Your task to perform on an android device: Open Chrome and go to settings Image 0: 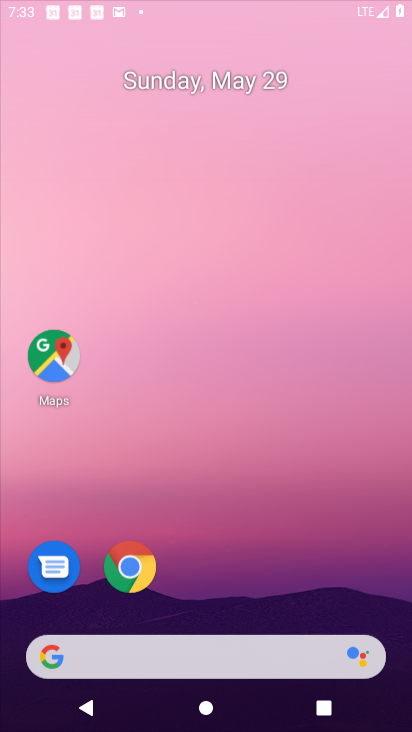
Step 0: press home button
Your task to perform on an android device: Open Chrome and go to settings Image 1: 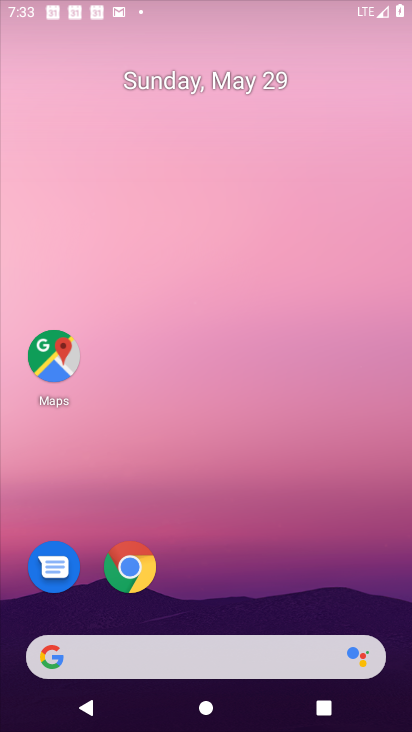
Step 1: drag from (230, 609) to (277, 381)
Your task to perform on an android device: Open Chrome and go to settings Image 2: 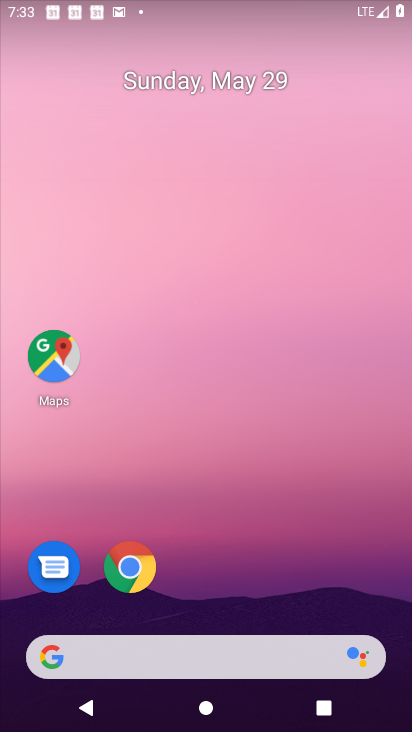
Step 2: drag from (248, 593) to (249, 186)
Your task to perform on an android device: Open Chrome and go to settings Image 3: 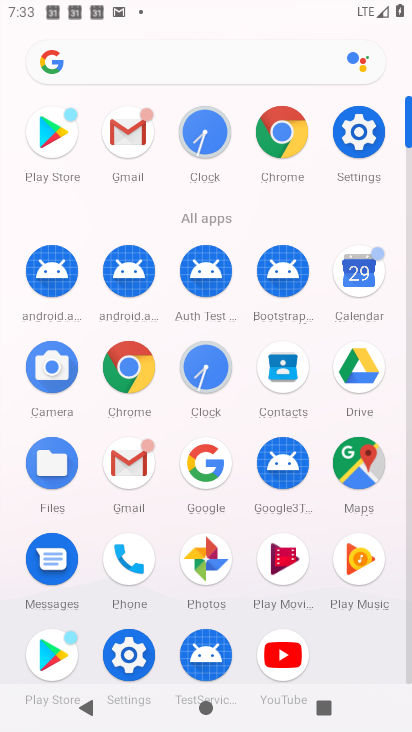
Step 3: click (345, 126)
Your task to perform on an android device: Open Chrome and go to settings Image 4: 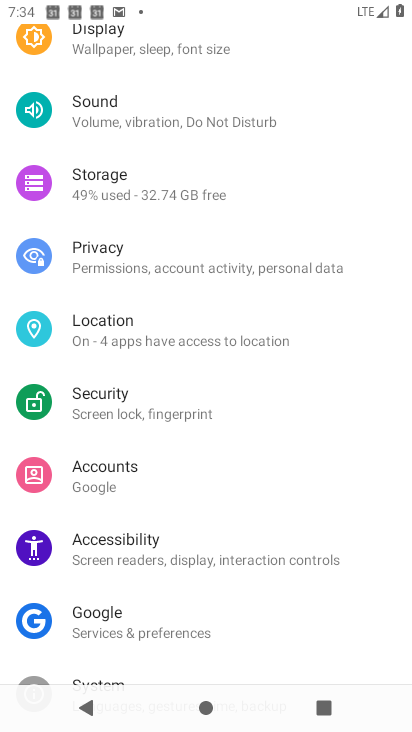
Step 4: drag from (166, 583) to (166, 517)
Your task to perform on an android device: Open Chrome and go to settings Image 5: 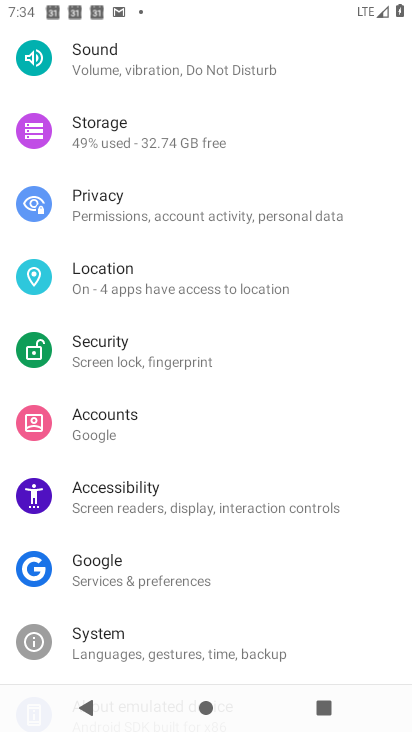
Step 5: press home button
Your task to perform on an android device: Open Chrome and go to settings Image 6: 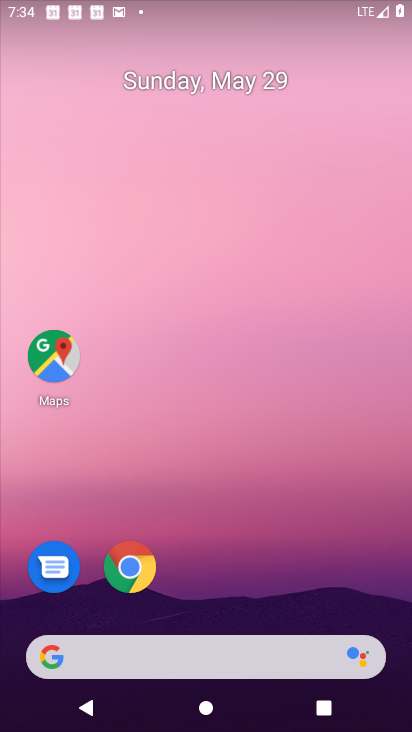
Step 6: click (134, 555)
Your task to perform on an android device: Open Chrome and go to settings Image 7: 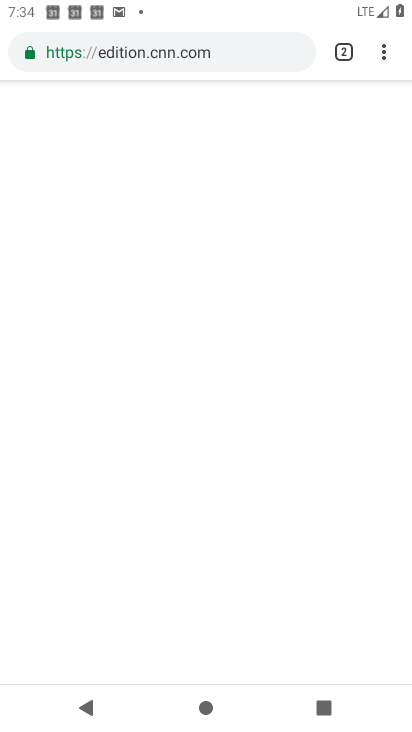
Step 7: click (387, 57)
Your task to perform on an android device: Open Chrome and go to settings Image 8: 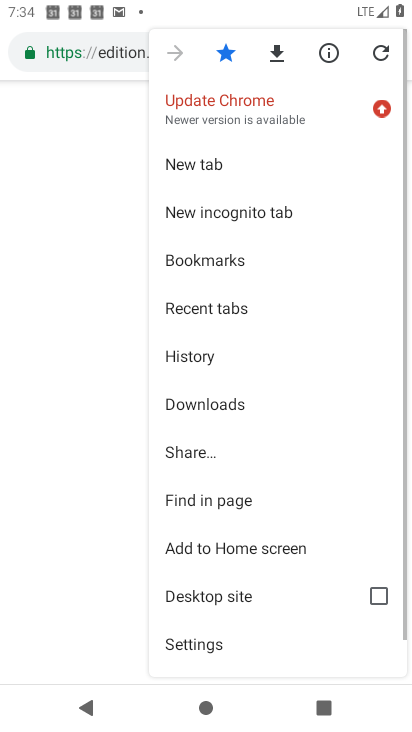
Step 8: drag from (214, 591) to (240, 424)
Your task to perform on an android device: Open Chrome and go to settings Image 9: 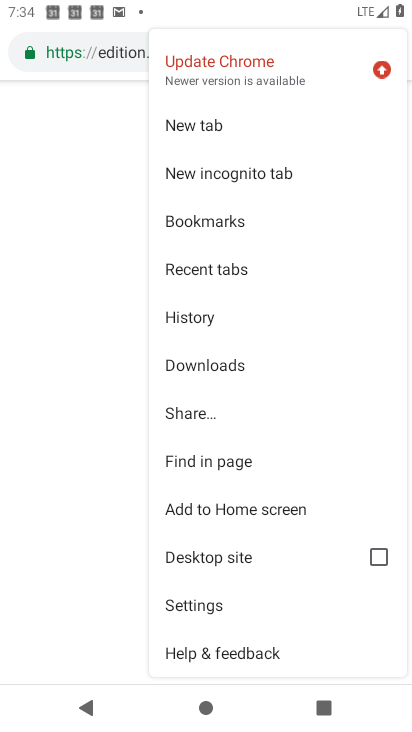
Step 9: click (200, 603)
Your task to perform on an android device: Open Chrome and go to settings Image 10: 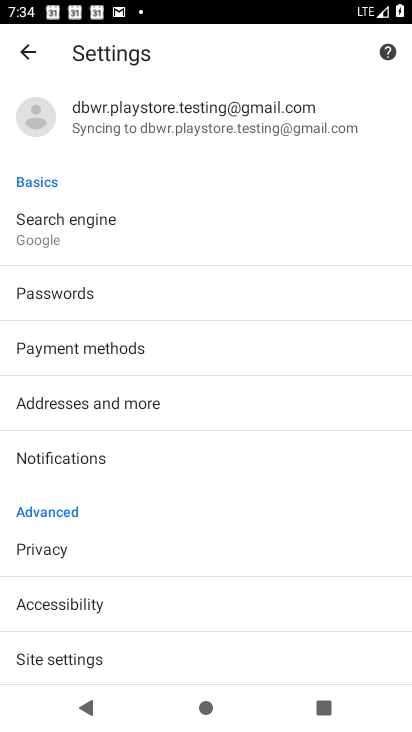
Step 10: task complete